Your task to perform on an android device: Search for pizza restaurants on Maps Image 0: 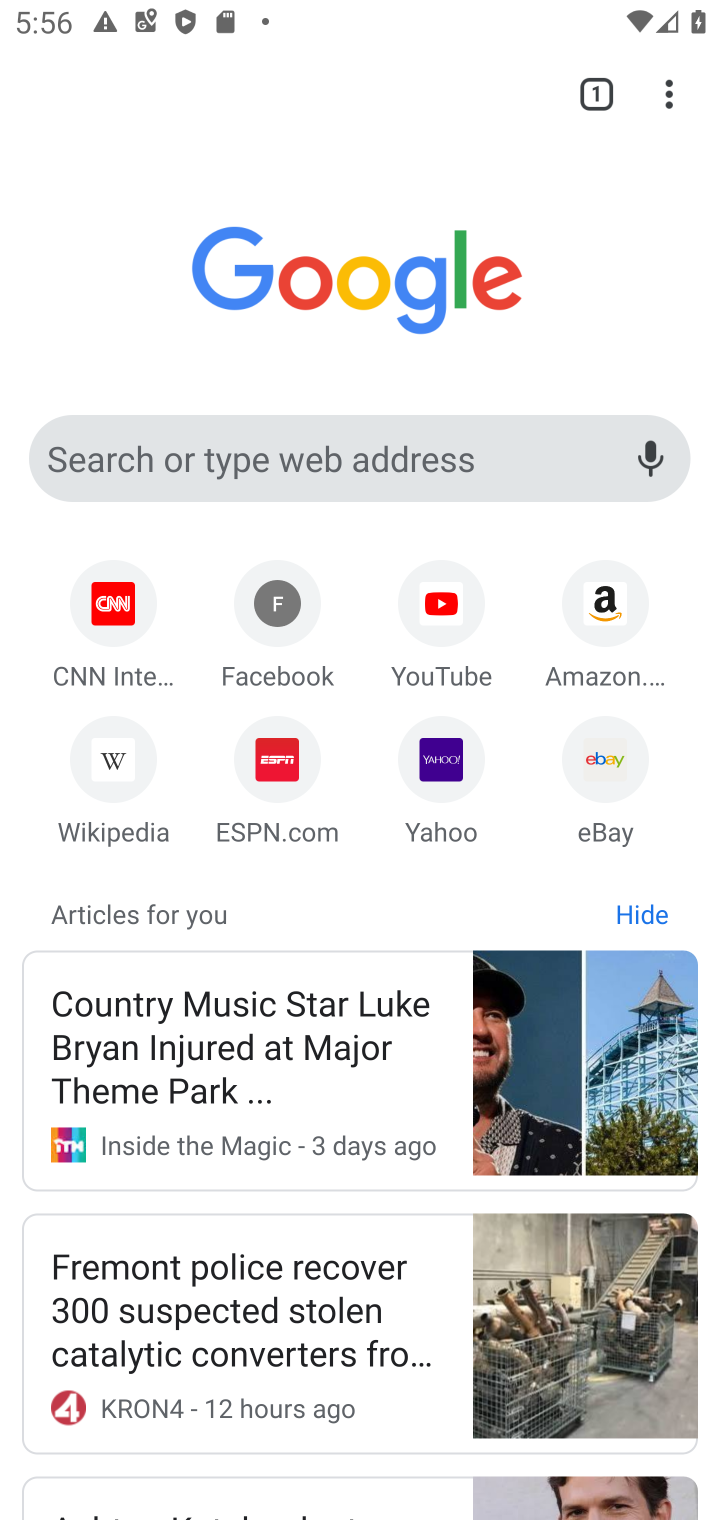
Step 0: press home button
Your task to perform on an android device: Search for pizza restaurants on Maps Image 1: 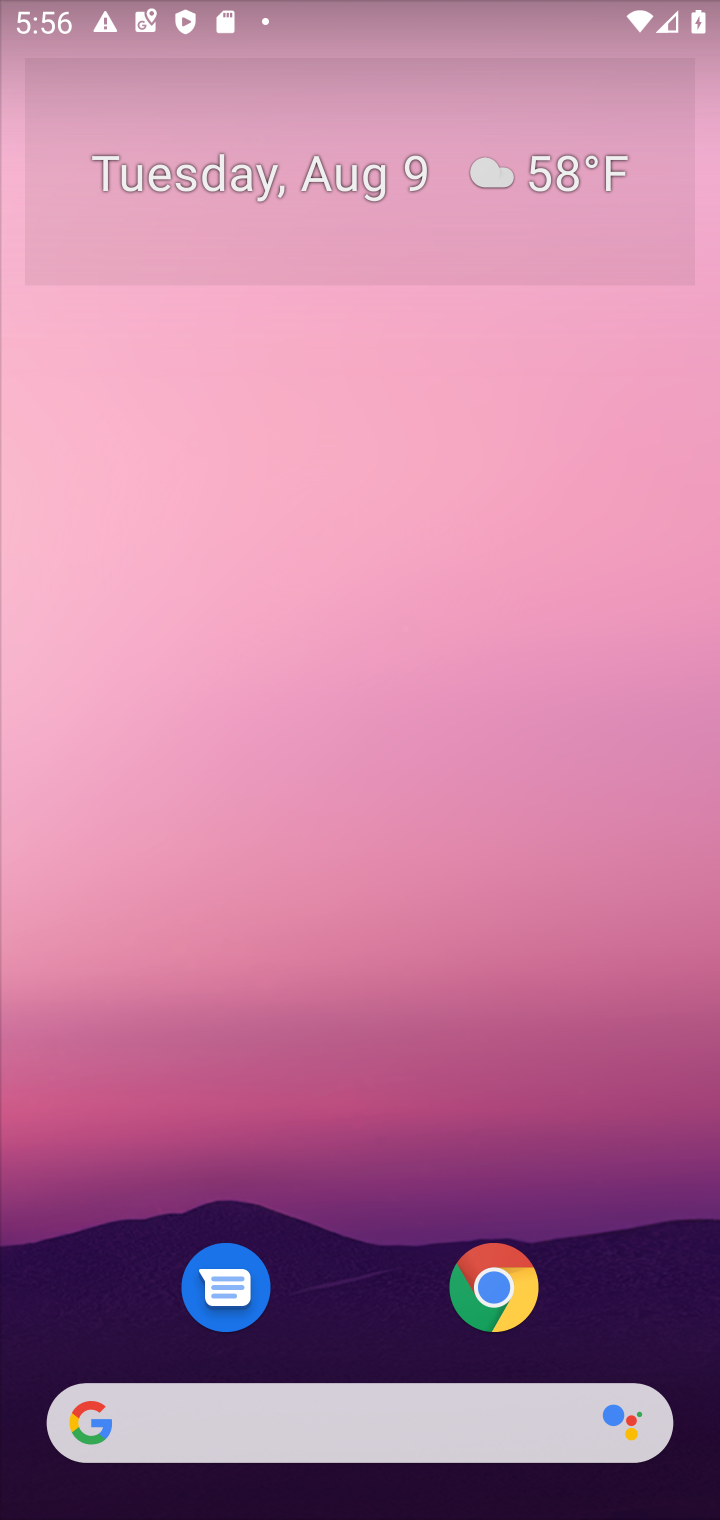
Step 1: click (366, 1414)
Your task to perform on an android device: Search for pizza restaurants on Maps Image 2: 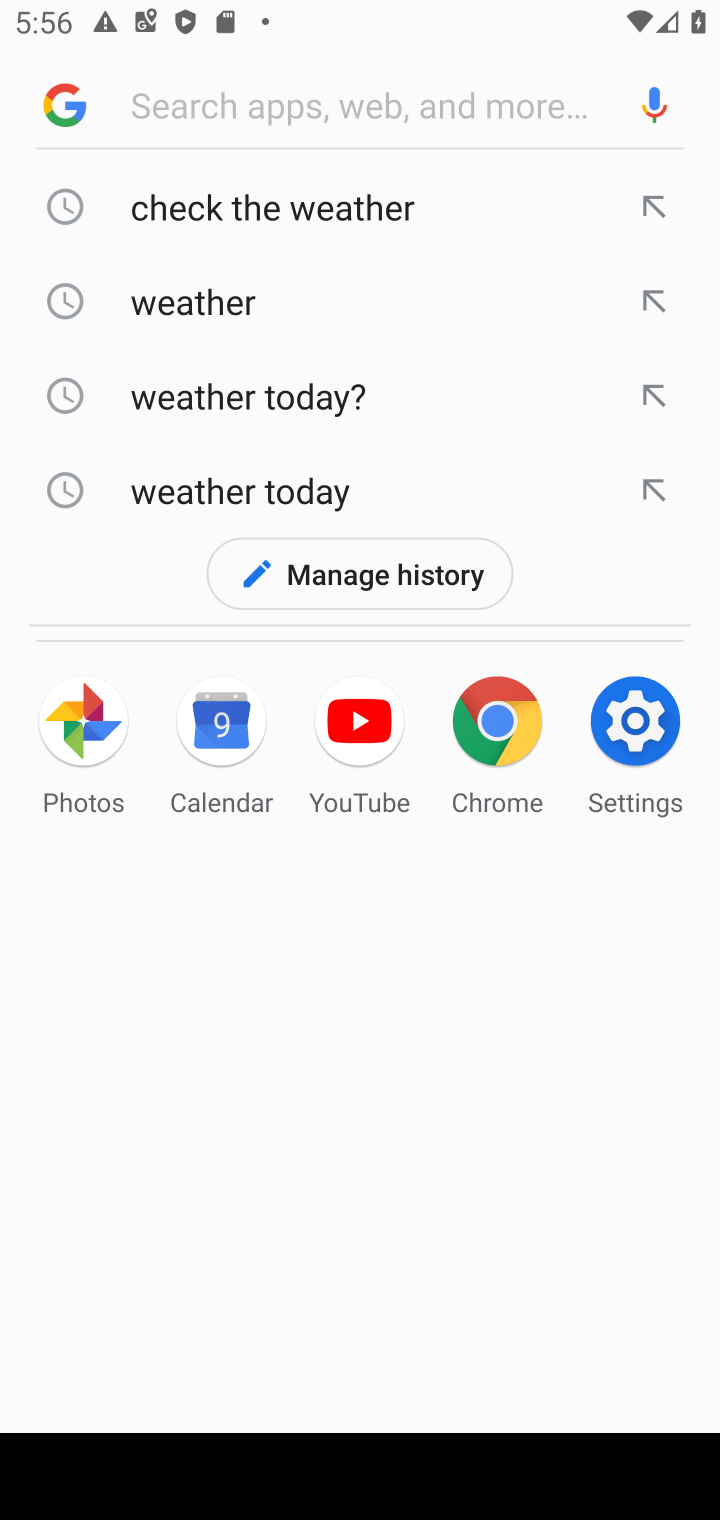
Step 2: type "pizza restaurants "
Your task to perform on an android device: Search for pizza restaurants on Maps Image 3: 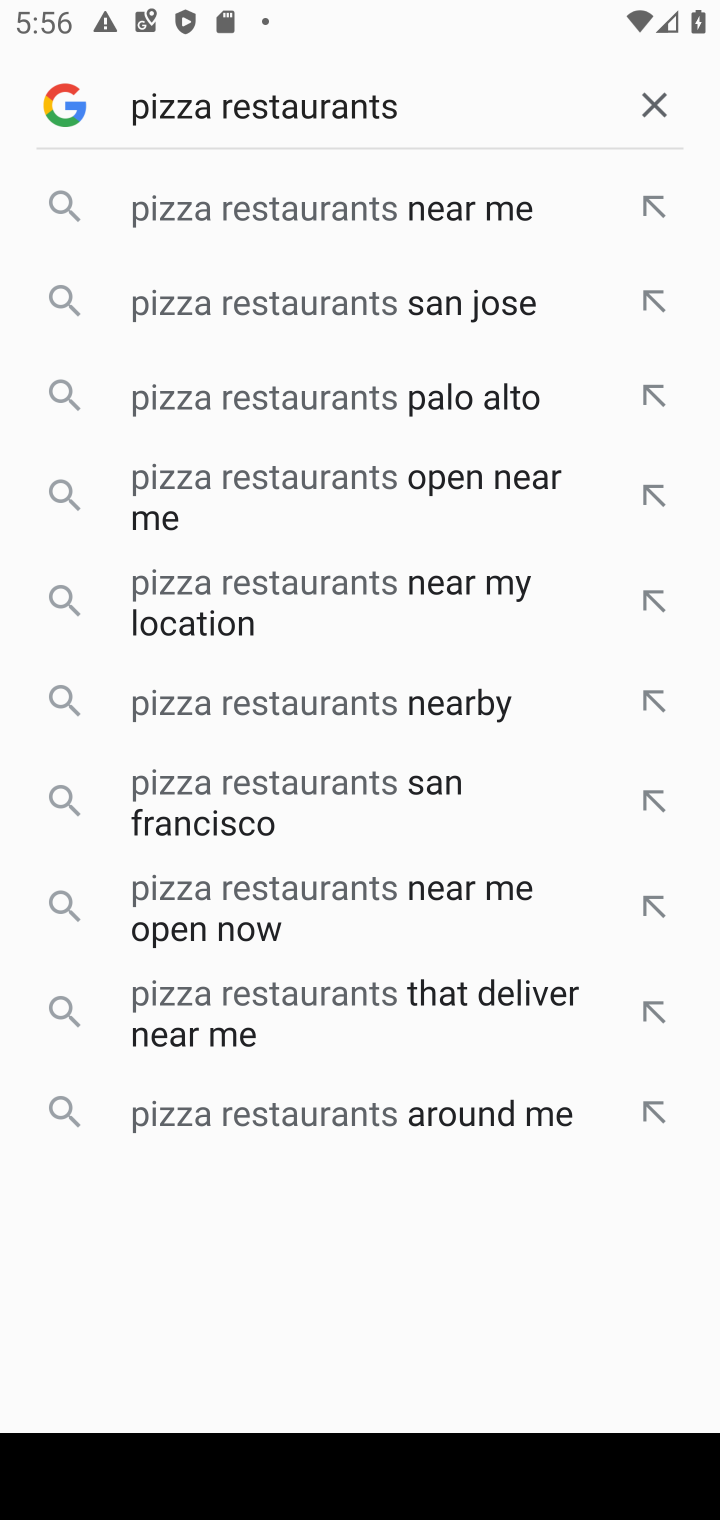
Step 3: press enter
Your task to perform on an android device: Search for pizza restaurants on Maps Image 4: 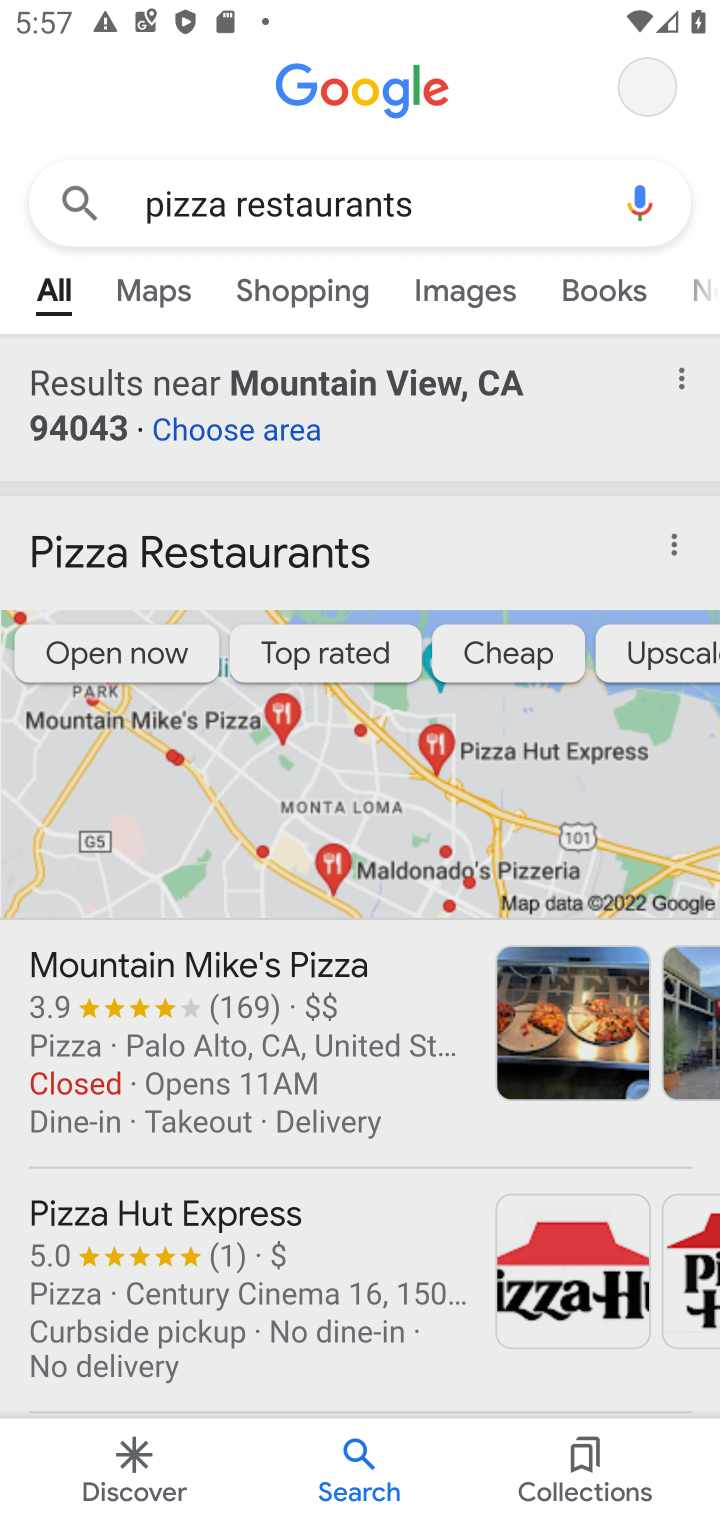
Step 4: task complete